Your task to perform on an android device: Find coffee shops on Maps Image 0: 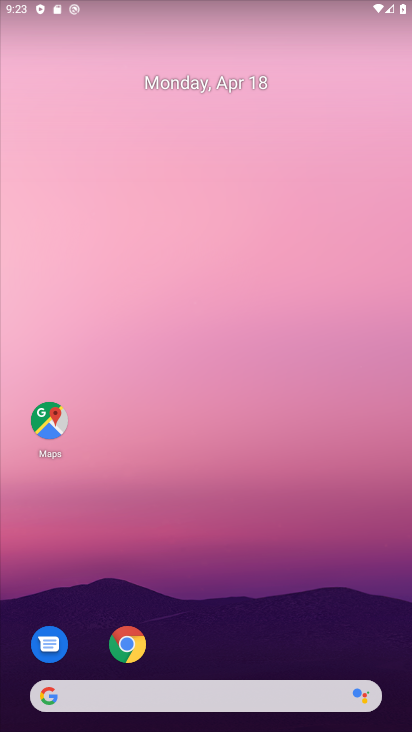
Step 0: click (65, 425)
Your task to perform on an android device: Find coffee shops on Maps Image 1: 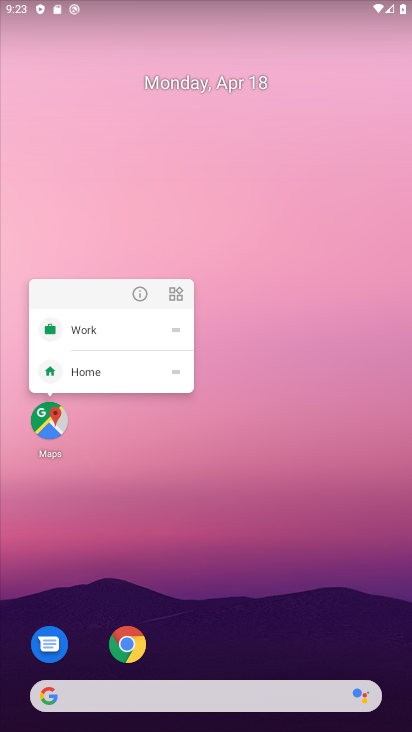
Step 1: click (53, 424)
Your task to perform on an android device: Find coffee shops on Maps Image 2: 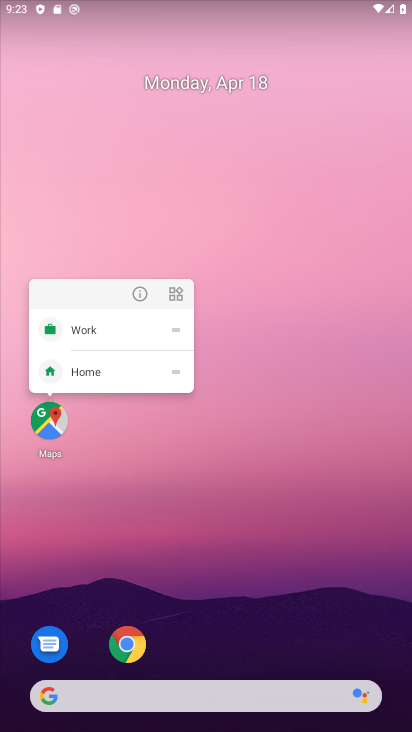
Step 2: click (53, 425)
Your task to perform on an android device: Find coffee shops on Maps Image 3: 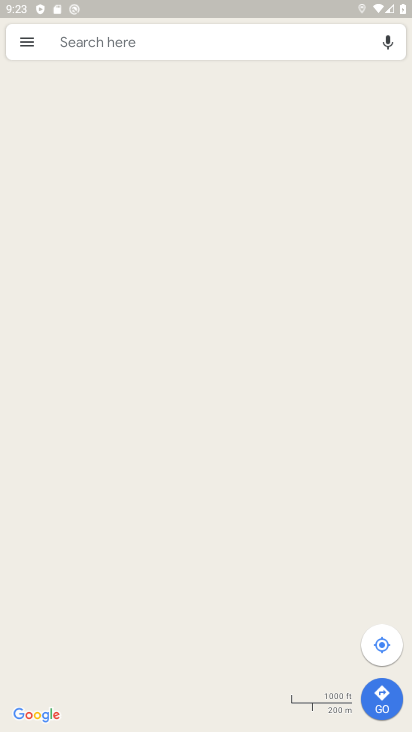
Step 3: click (167, 43)
Your task to perform on an android device: Find coffee shops on Maps Image 4: 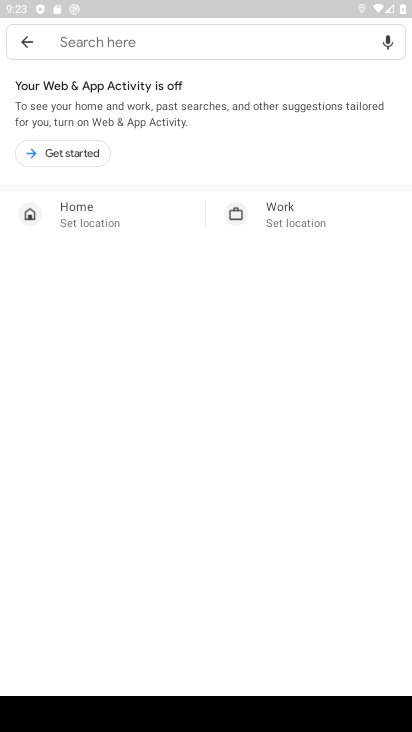
Step 4: type "coffee shops"
Your task to perform on an android device: Find coffee shops on Maps Image 5: 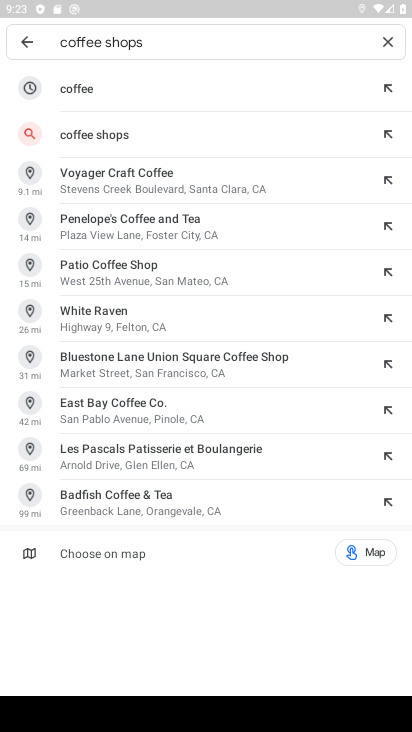
Step 5: click (122, 131)
Your task to perform on an android device: Find coffee shops on Maps Image 6: 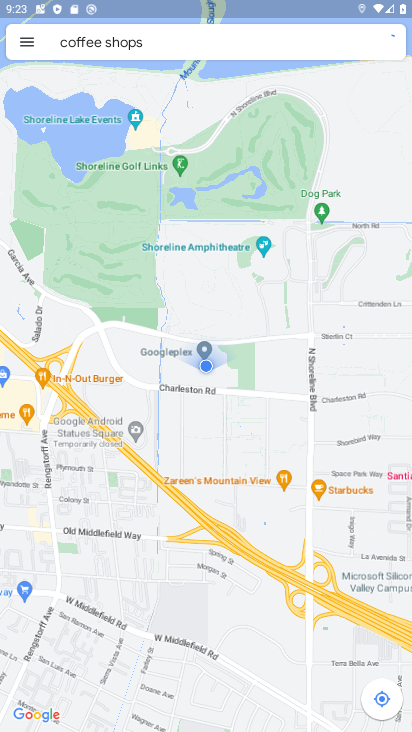
Step 6: task complete